Your task to perform on an android device: Open the calendar and show me this week's events Image 0: 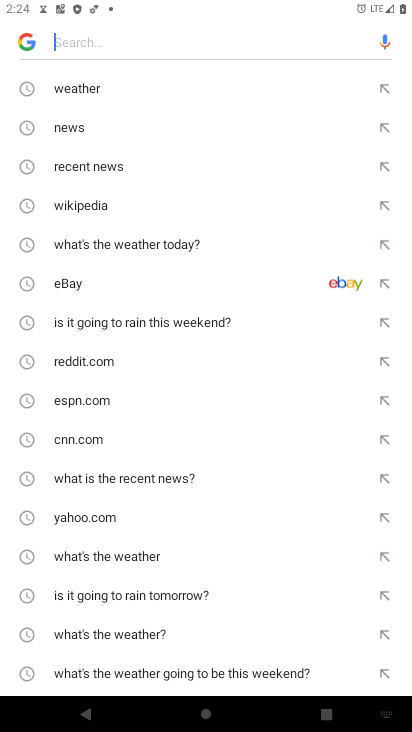
Step 0: press home button
Your task to perform on an android device: Open the calendar and show me this week's events Image 1: 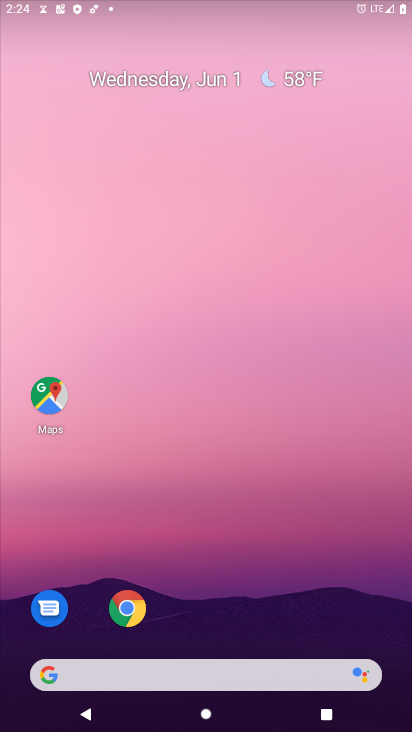
Step 1: drag from (164, 450) to (142, 150)
Your task to perform on an android device: Open the calendar and show me this week's events Image 2: 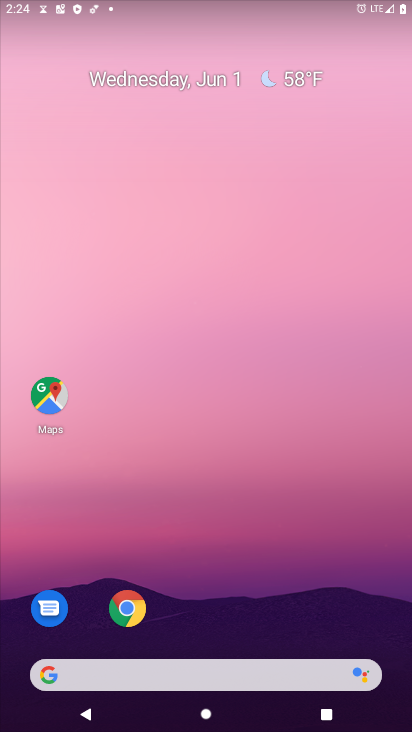
Step 2: drag from (259, 601) to (221, 41)
Your task to perform on an android device: Open the calendar and show me this week's events Image 3: 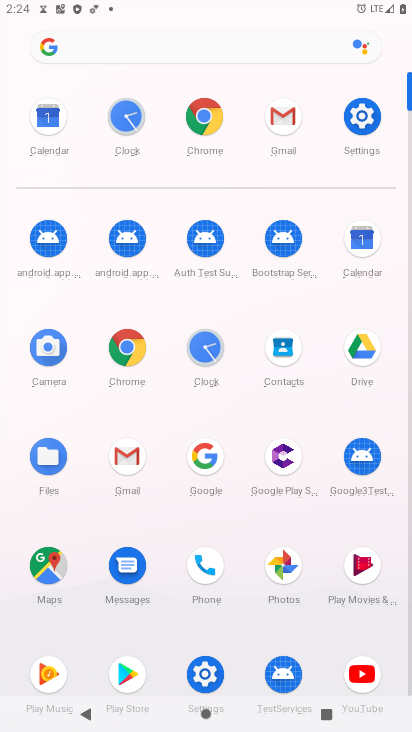
Step 3: click (362, 249)
Your task to perform on an android device: Open the calendar and show me this week's events Image 4: 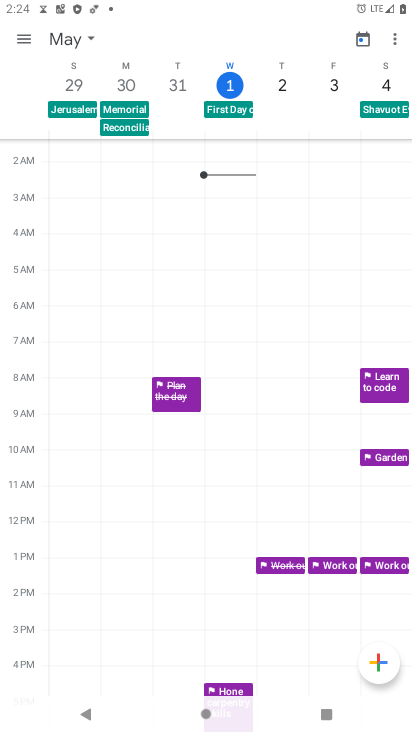
Step 4: task complete